Your task to perform on an android device: turn pop-ups on in chrome Image 0: 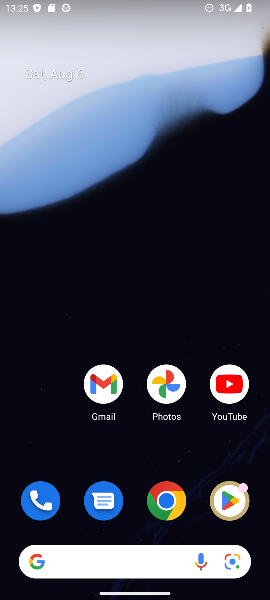
Step 0: click (169, 514)
Your task to perform on an android device: turn pop-ups on in chrome Image 1: 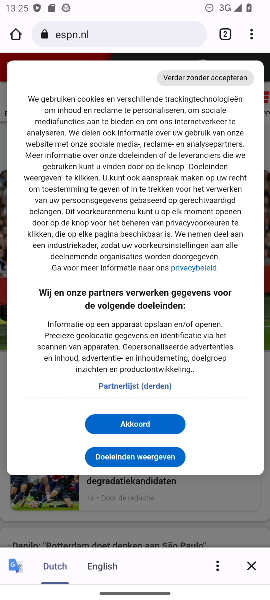
Step 1: click (250, 35)
Your task to perform on an android device: turn pop-ups on in chrome Image 2: 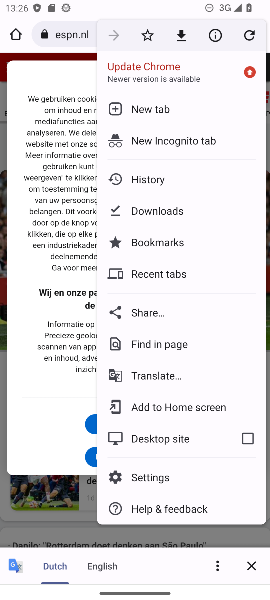
Step 2: click (145, 478)
Your task to perform on an android device: turn pop-ups on in chrome Image 3: 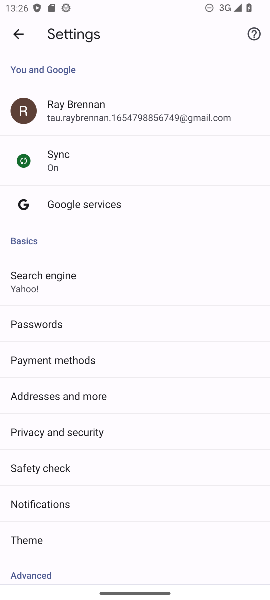
Step 3: drag from (89, 514) to (72, 272)
Your task to perform on an android device: turn pop-ups on in chrome Image 4: 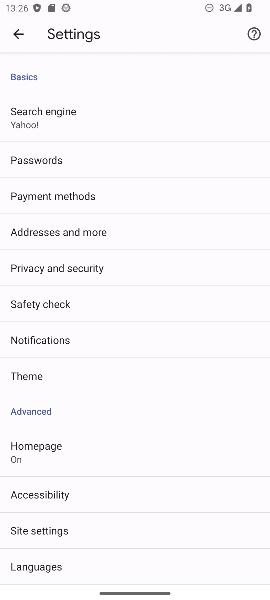
Step 4: click (58, 525)
Your task to perform on an android device: turn pop-ups on in chrome Image 5: 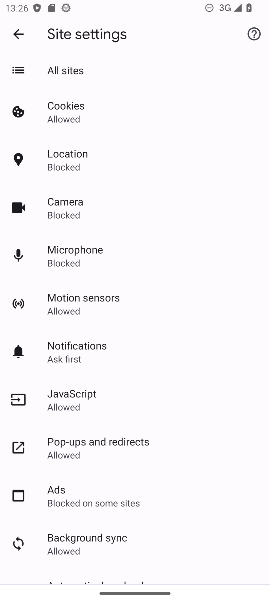
Step 5: click (81, 457)
Your task to perform on an android device: turn pop-ups on in chrome Image 6: 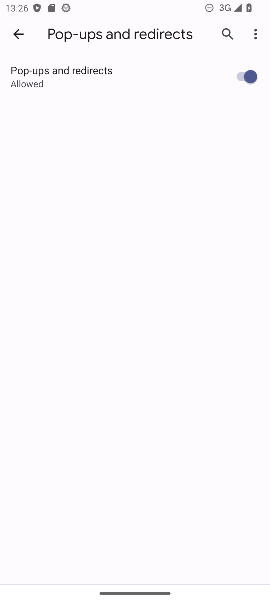
Step 6: task complete